Your task to perform on an android device: Open the calendar and show me this week's events? Image 0: 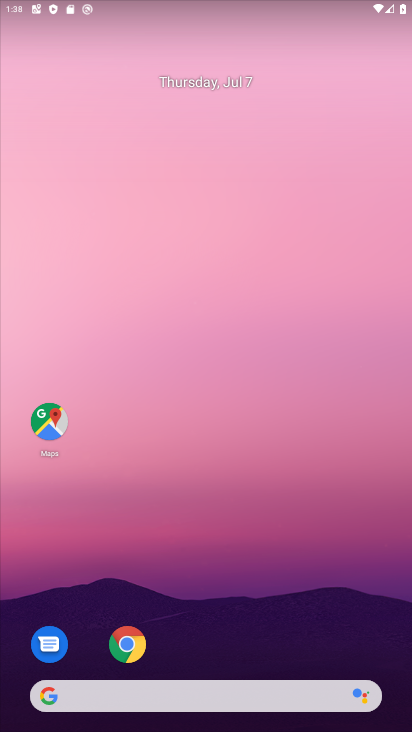
Step 0: drag from (205, 690) to (164, 120)
Your task to perform on an android device: Open the calendar and show me this week's events? Image 1: 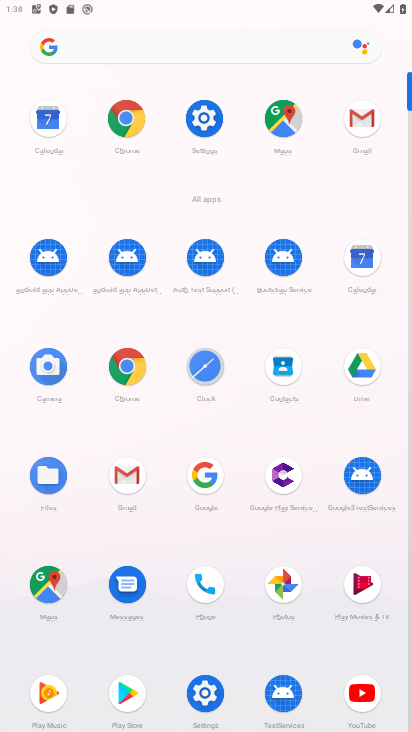
Step 1: click (360, 272)
Your task to perform on an android device: Open the calendar and show me this week's events? Image 2: 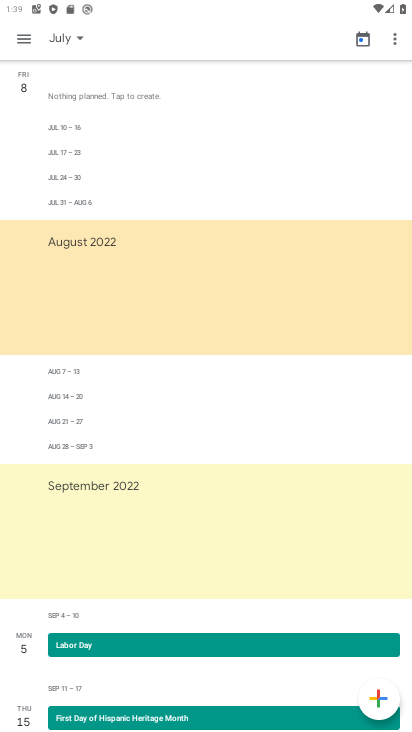
Step 2: click (19, 32)
Your task to perform on an android device: Open the calendar and show me this week's events? Image 3: 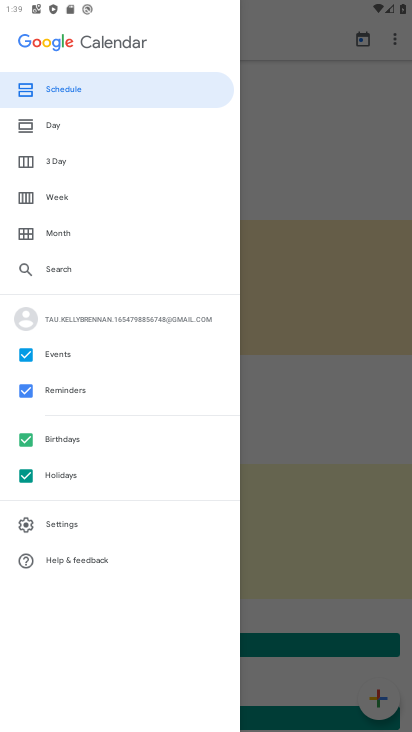
Step 3: click (82, 200)
Your task to perform on an android device: Open the calendar and show me this week's events? Image 4: 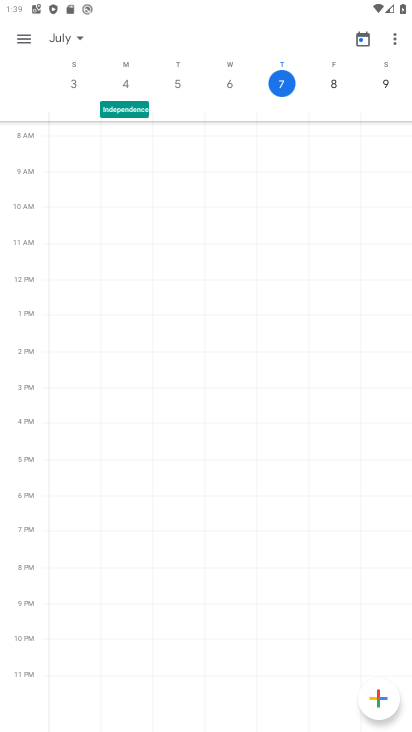
Step 4: task complete